Your task to perform on an android device: uninstall "Lyft - Rideshare, Bikes, Scooters & Transit" Image 0: 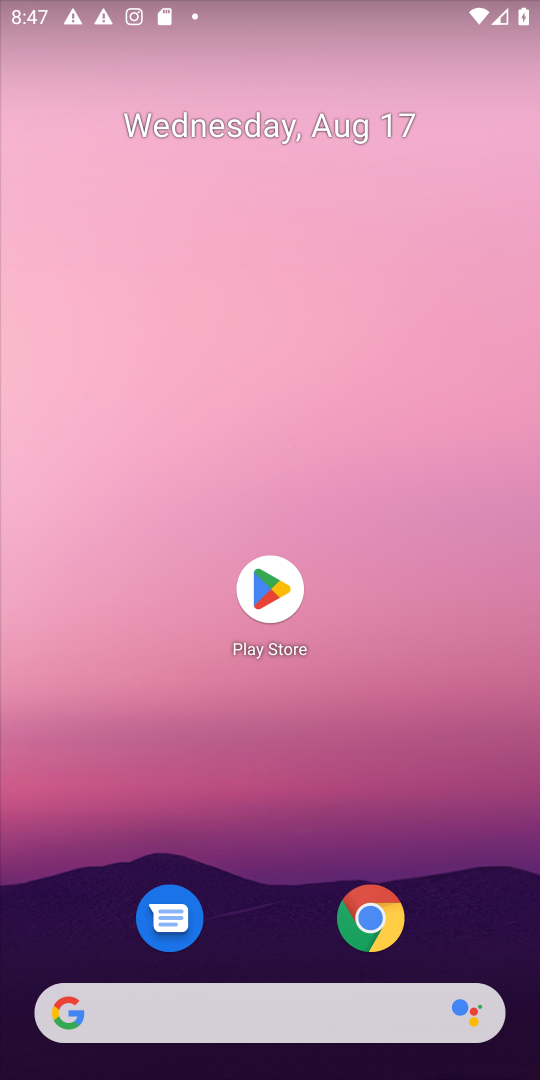
Step 0: click (274, 587)
Your task to perform on an android device: uninstall "Lyft - Rideshare, Bikes, Scooters & Transit" Image 1: 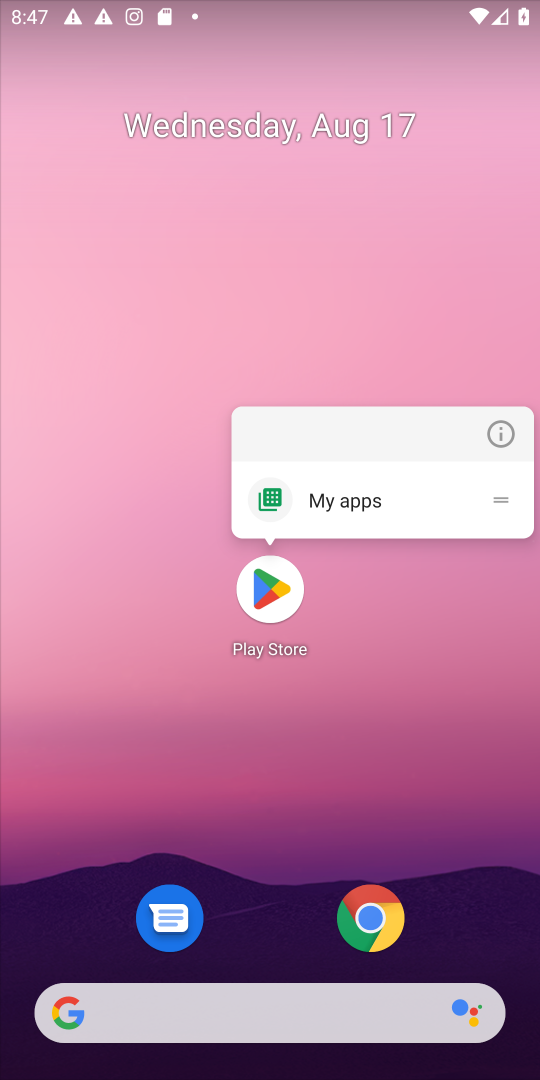
Step 1: click (266, 596)
Your task to perform on an android device: uninstall "Lyft - Rideshare, Bikes, Scooters & Transit" Image 2: 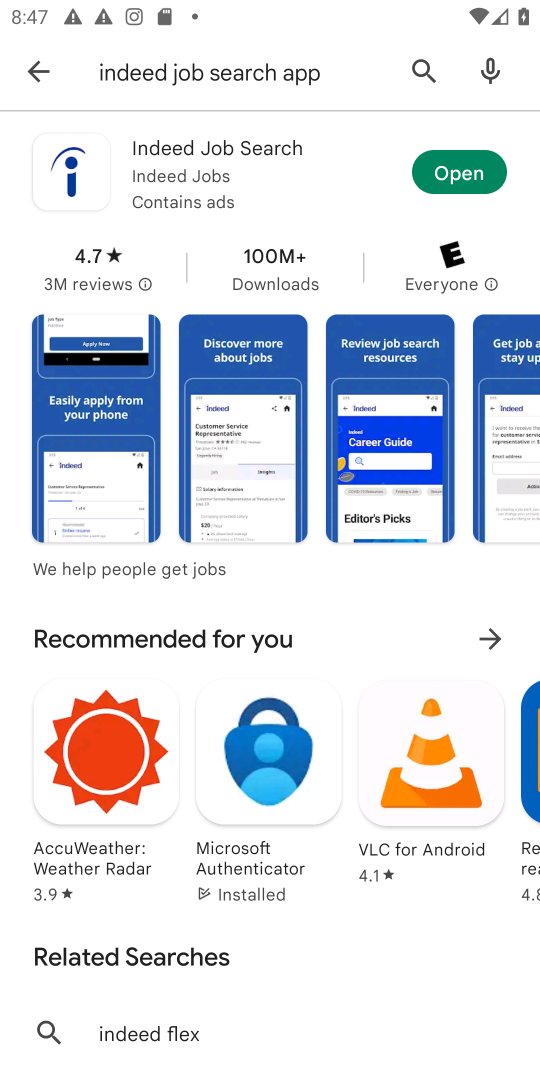
Step 2: click (425, 60)
Your task to perform on an android device: uninstall "Lyft - Rideshare, Bikes, Scooters & Transit" Image 3: 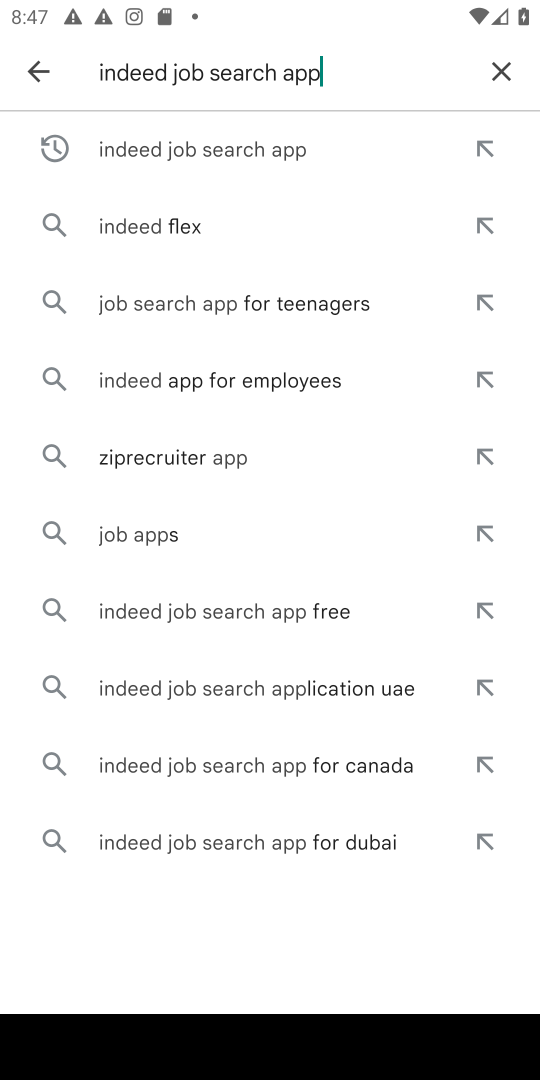
Step 3: click (495, 58)
Your task to perform on an android device: uninstall "Lyft - Rideshare, Bikes, Scooters & Transit" Image 4: 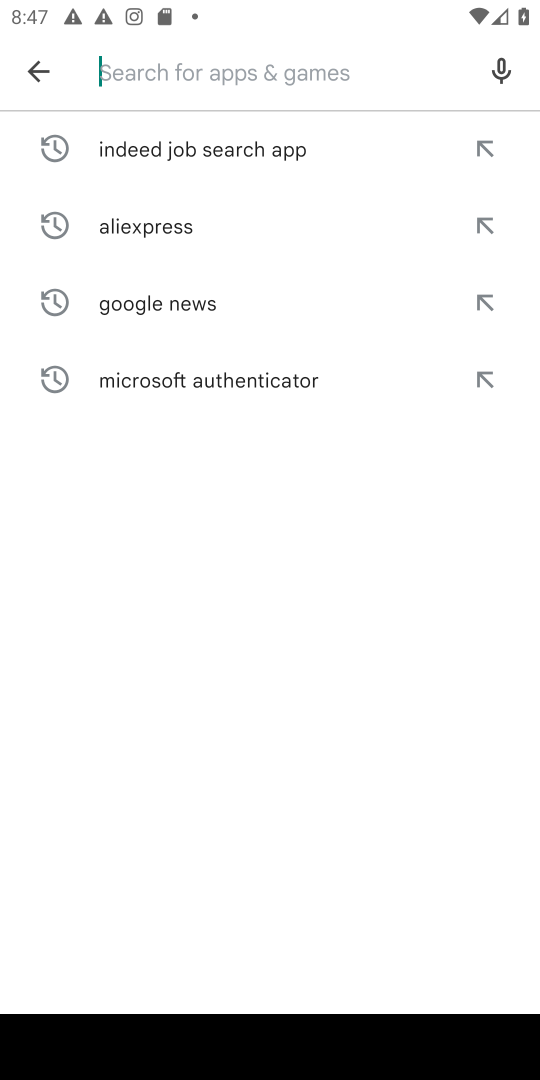
Step 4: type "Lyft - Rideshare, Bikes, Scooters & Transit"
Your task to perform on an android device: uninstall "Lyft - Rideshare, Bikes, Scooters & Transit" Image 5: 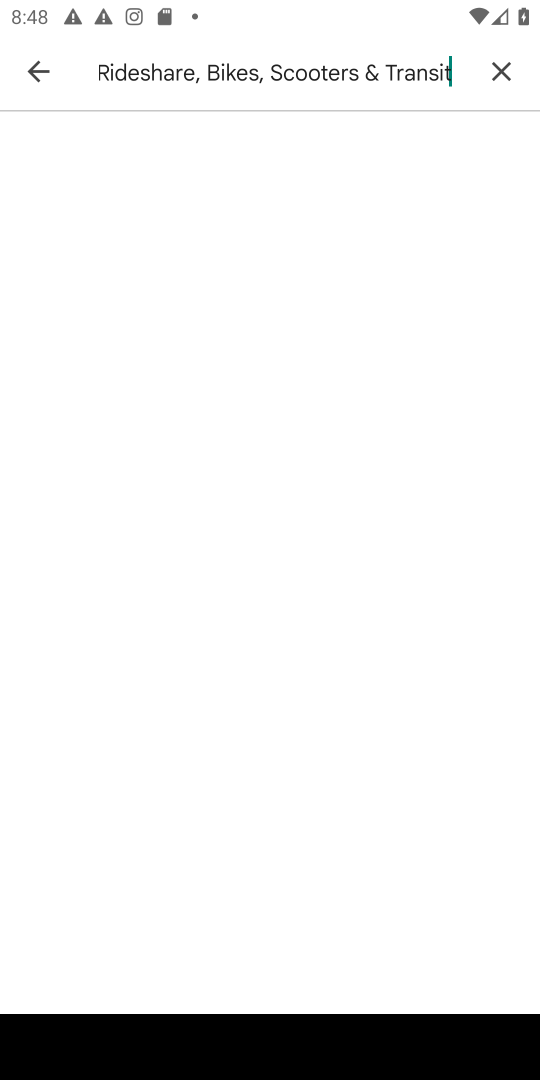
Step 5: press back button
Your task to perform on an android device: uninstall "Lyft - Rideshare, Bikes, Scooters & Transit" Image 6: 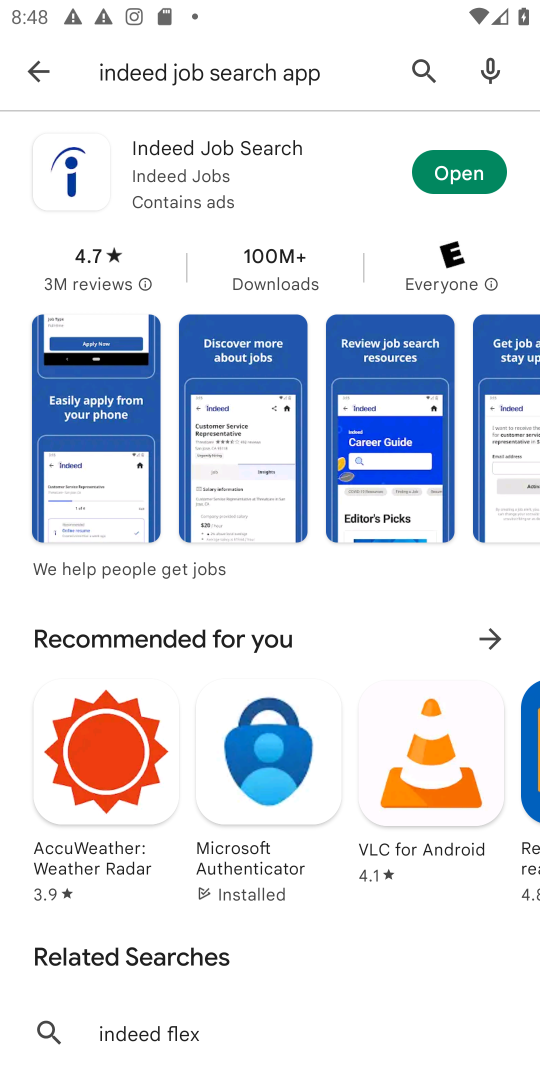
Step 6: type "Lyft  Rideshare, Bikes, Scooters & Transit"
Your task to perform on an android device: uninstall "Lyft - Rideshare, Bikes, Scooters & Transit" Image 7: 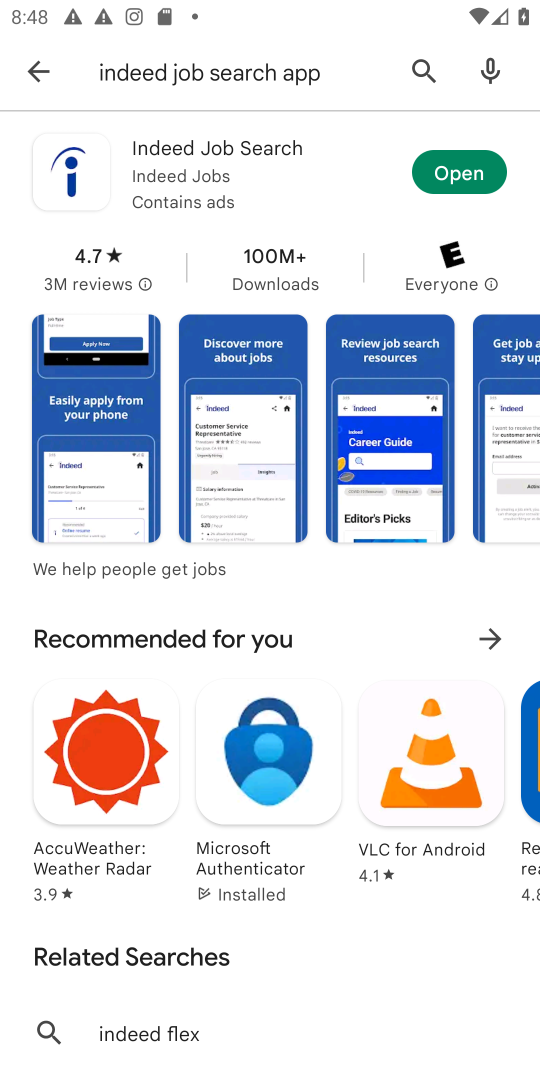
Step 7: click (414, 66)
Your task to perform on an android device: uninstall "Lyft - Rideshare, Bikes, Scooters & Transit" Image 8: 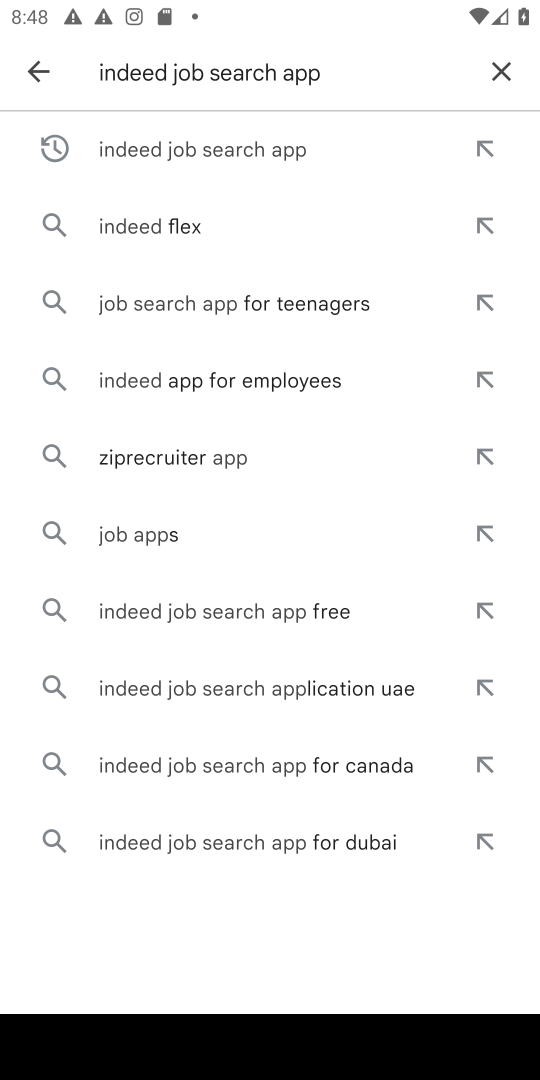
Step 8: click (504, 69)
Your task to perform on an android device: uninstall "Lyft - Rideshare, Bikes, Scooters & Transit" Image 9: 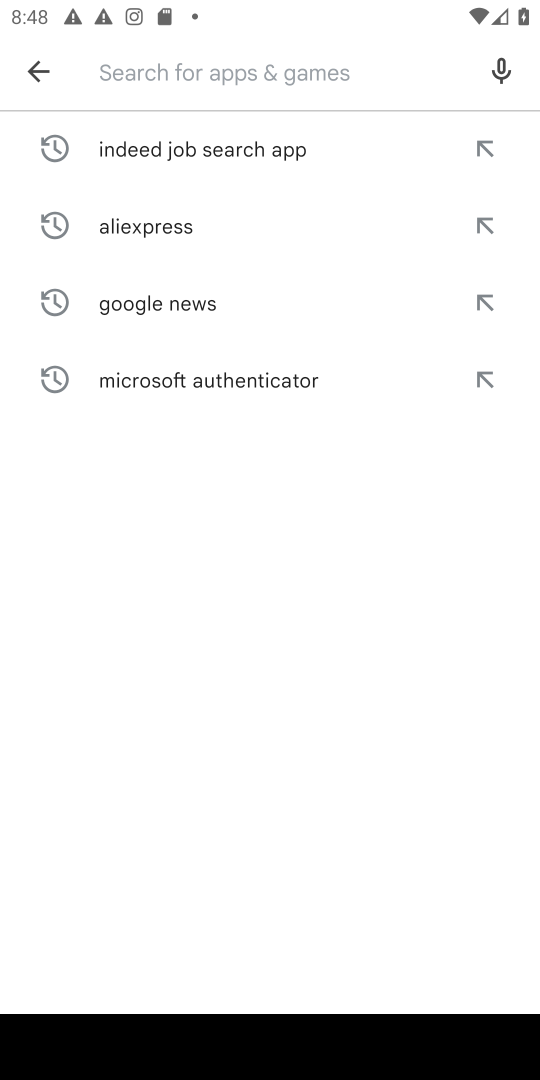
Step 9: type "Lyft Rideshare, Bikes, Scooters & Transit"
Your task to perform on an android device: uninstall "Lyft - Rideshare, Bikes, Scooters & Transit" Image 10: 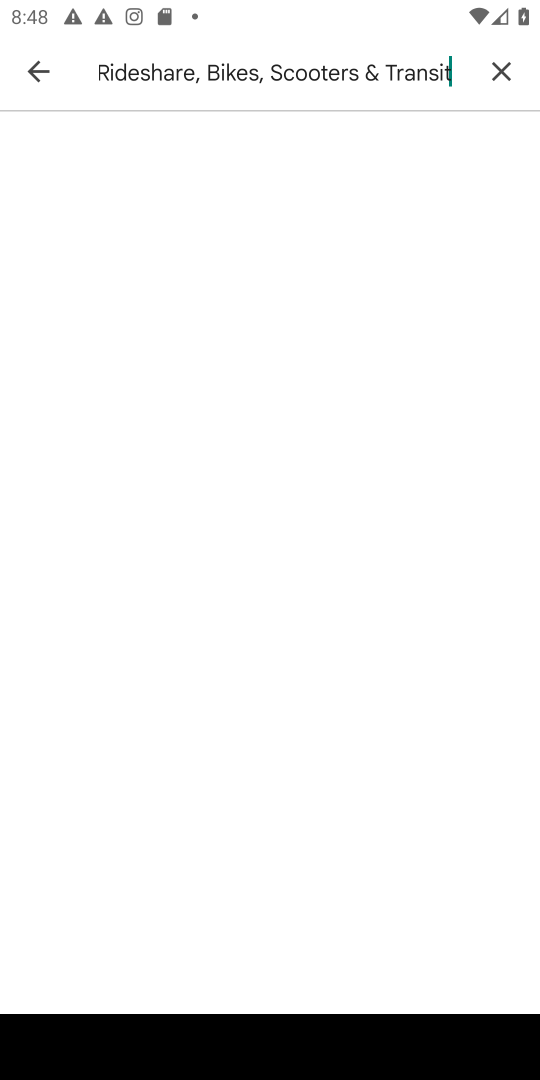
Step 10: task complete